Your task to perform on an android device: uninstall "Paramount+ | Peak Streaming" Image 0: 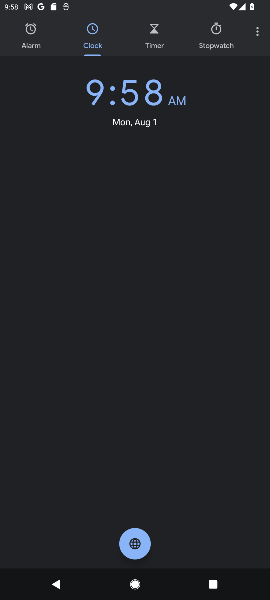
Step 0: task complete